Your task to perform on an android device: Open Yahoo.com Image 0: 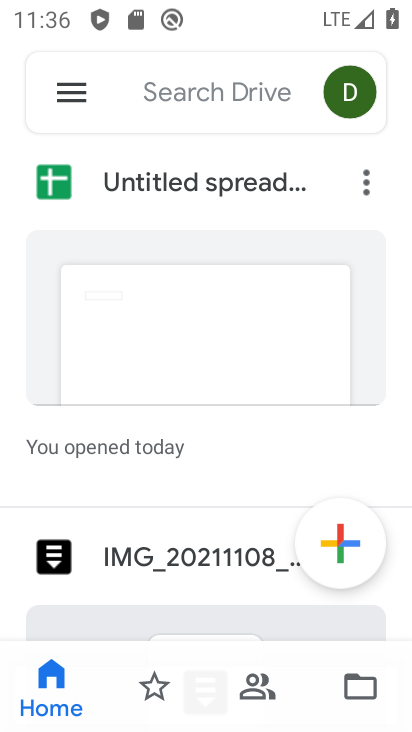
Step 0: press home button
Your task to perform on an android device: Open Yahoo.com Image 1: 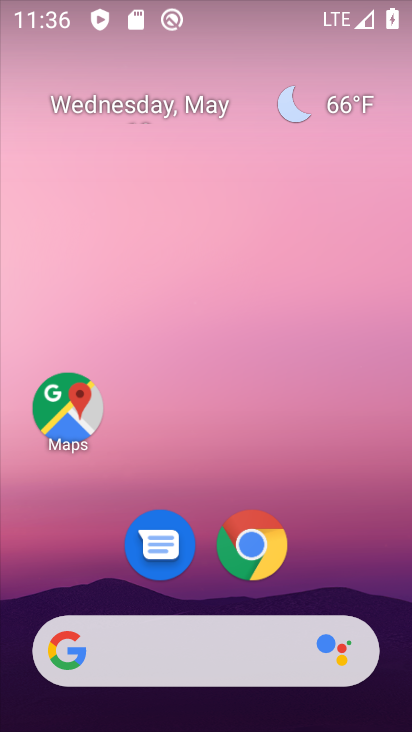
Step 1: click (167, 669)
Your task to perform on an android device: Open Yahoo.com Image 2: 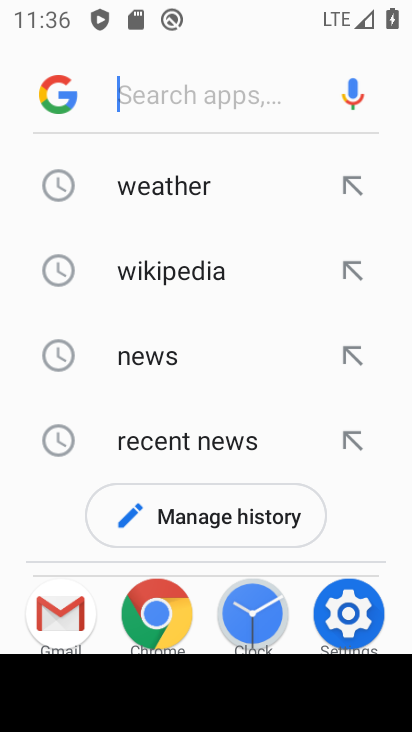
Step 2: type "yahoo.com"
Your task to perform on an android device: Open Yahoo.com Image 3: 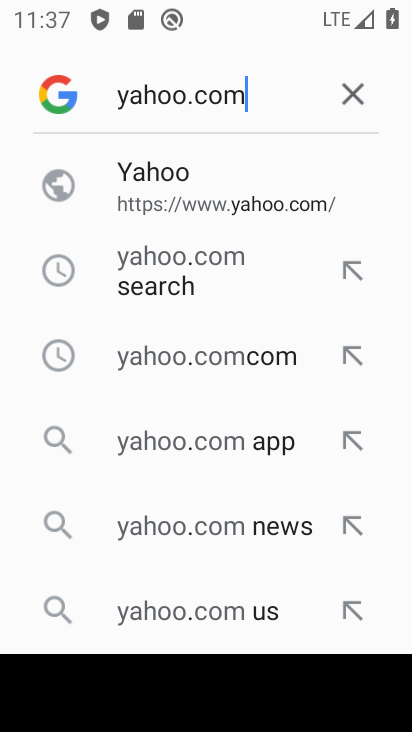
Step 3: click (284, 188)
Your task to perform on an android device: Open Yahoo.com Image 4: 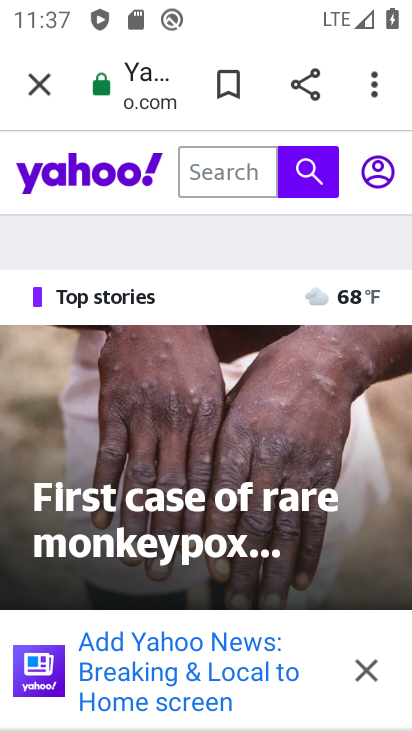
Step 4: task complete